Your task to perform on an android device: Go to calendar. Show me events next week Image 0: 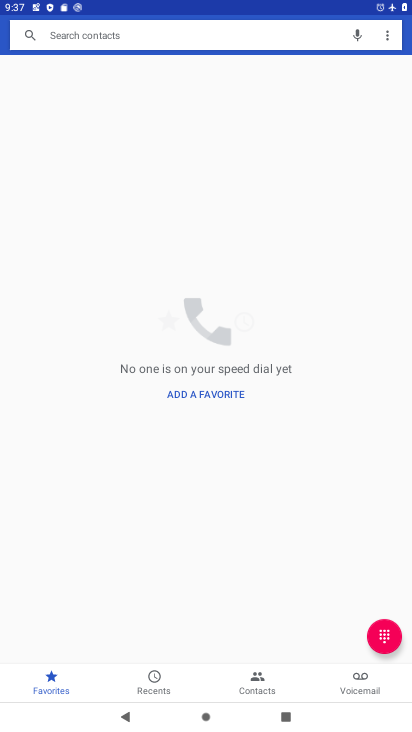
Step 0: press home button
Your task to perform on an android device: Go to calendar. Show me events next week Image 1: 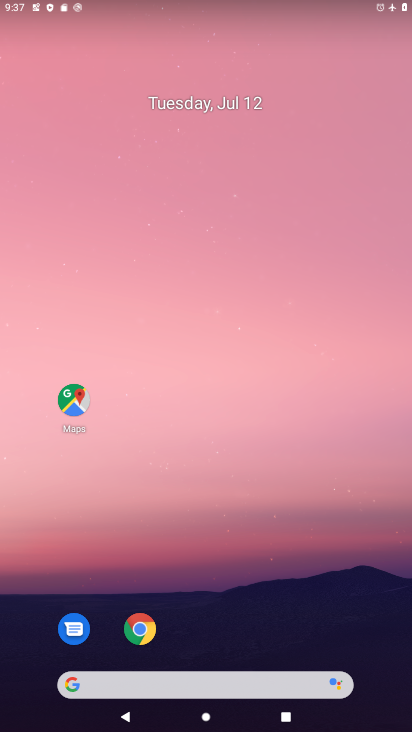
Step 1: drag from (254, 605) to (233, 392)
Your task to perform on an android device: Go to calendar. Show me events next week Image 2: 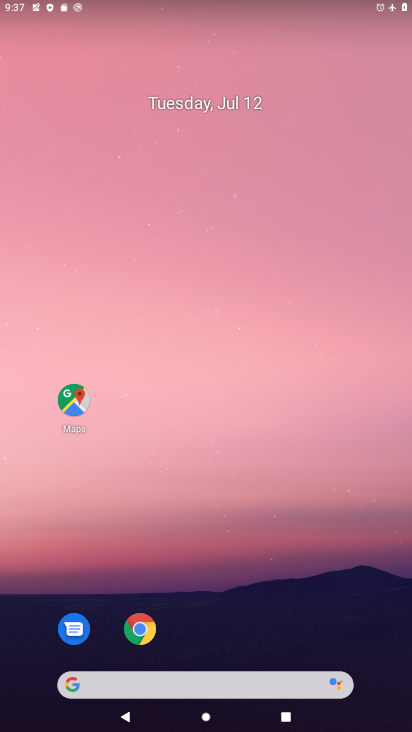
Step 2: drag from (248, 609) to (240, 452)
Your task to perform on an android device: Go to calendar. Show me events next week Image 3: 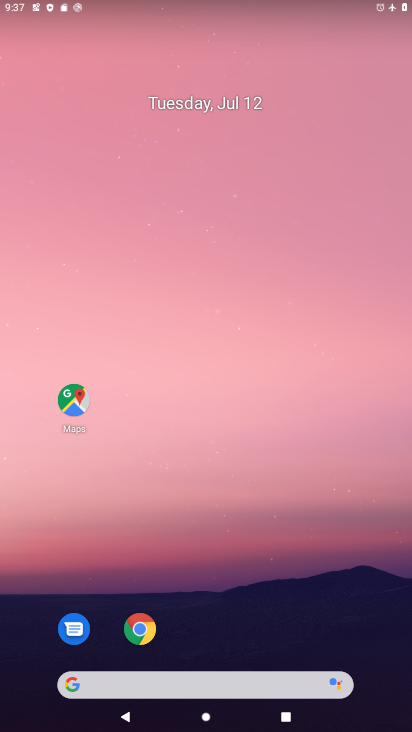
Step 3: drag from (248, 618) to (235, 29)
Your task to perform on an android device: Go to calendar. Show me events next week Image 4: 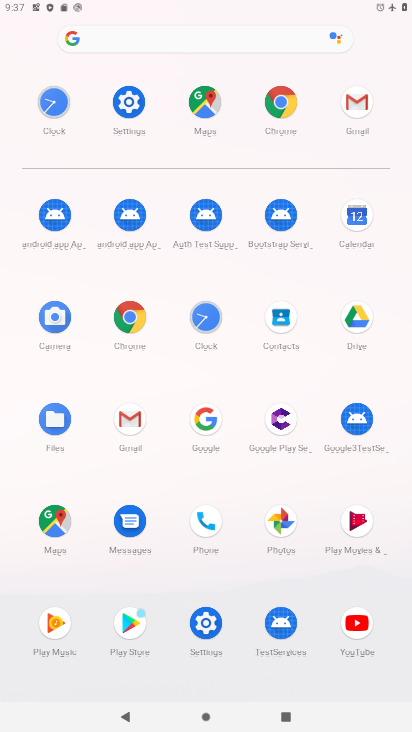
Step 4: click (343, 212)
Your task to perform on an android device: Go to calendar. Show me events next week Image 5: 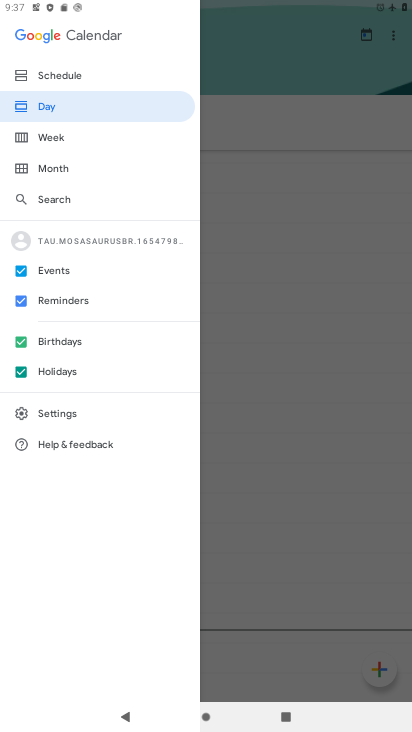
Step 5: click (50, 133)
Your task to perform on an android device: Go to calendar. Show me events next week Image 6: 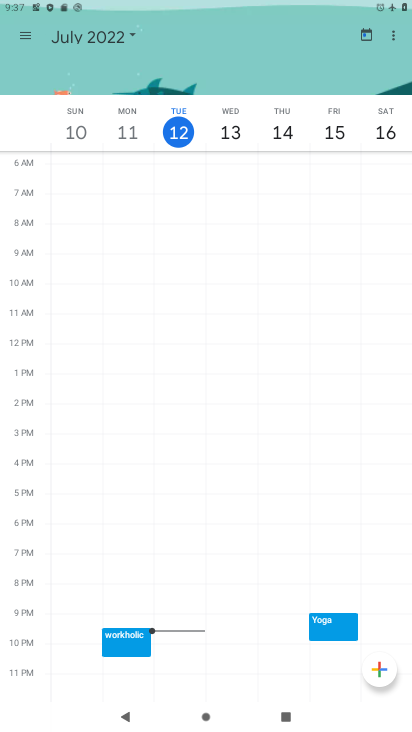
Step 6: task complete